Your task to perform on an android device: move an email to a new category in the gmail app Image 0: 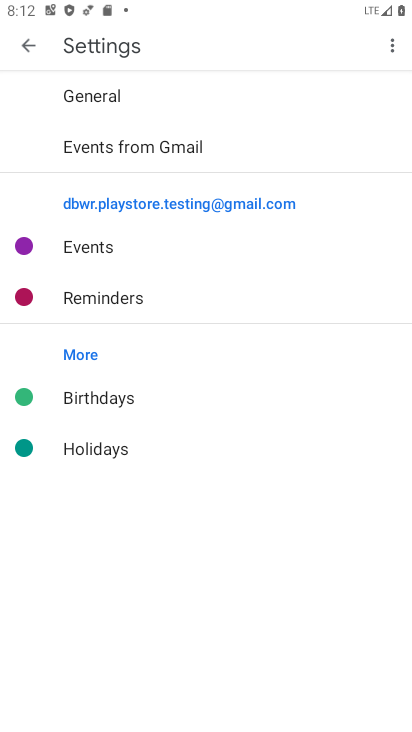
Step 0: press home button
Your task to perform on an android device: move an email to a new category in the gmail app Image 1: 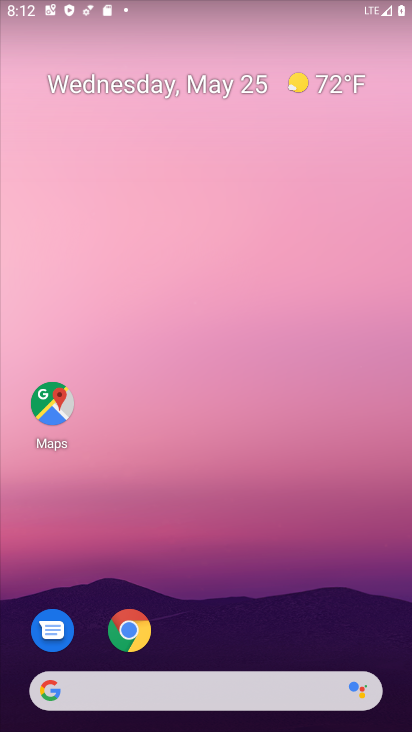
Step 1: drag from (238, 648) to (218, 229)
Your task to perform on an android device: move an email to a new category in the gmail app Image 2: 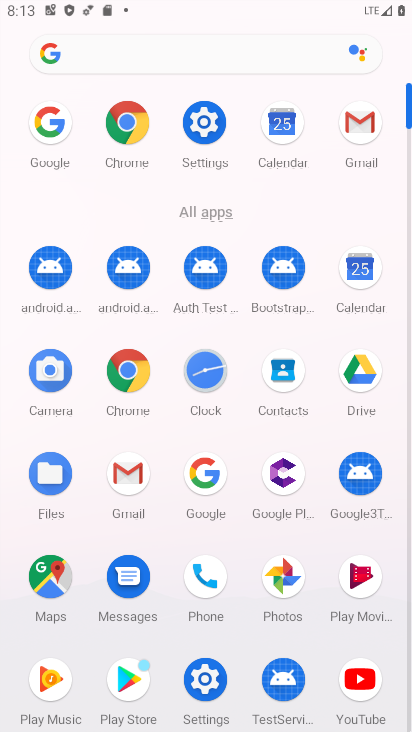
Step 2: click (365, 145)
Your task to perform on an android device: move an email to a new category in the gmail app Image 3: 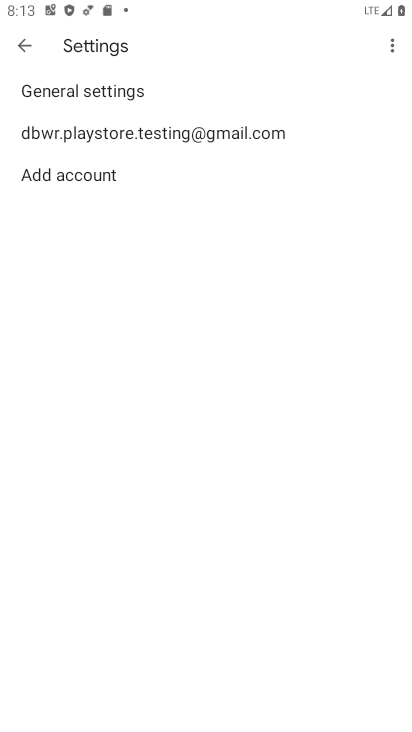
Step 3: click (28, 53)
Your task to perform on an android device: move an email to a new category in the gmail app Image 4: 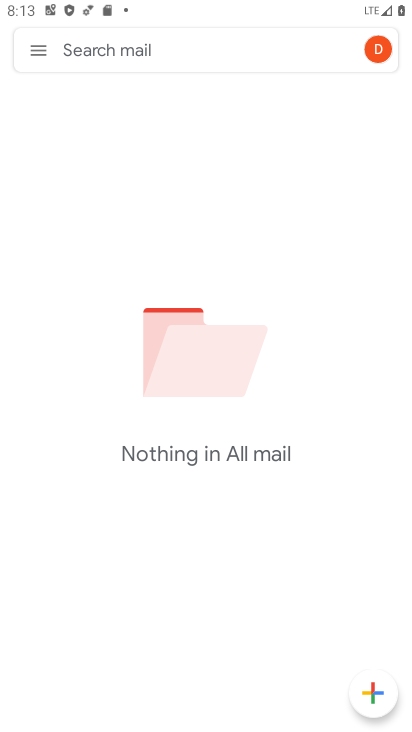
Step 4: click (30, 52)
Your task to perform on an android device: move an email to a new category in the gmail app Image 5: 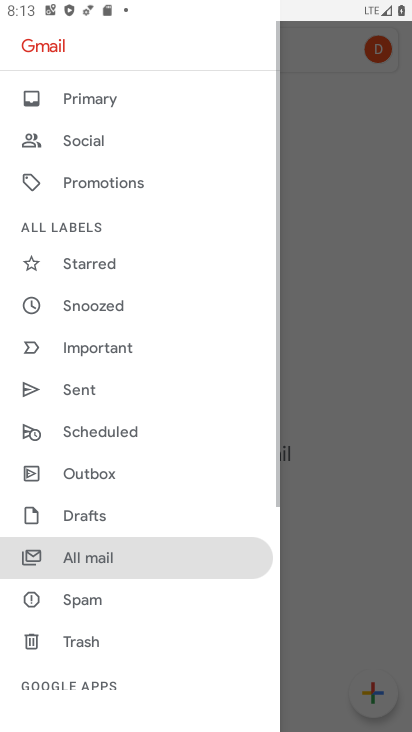
Step 5: click (108, 555)
Your task to perform on an android device: move an email to a new category in the gmail app Image 6: 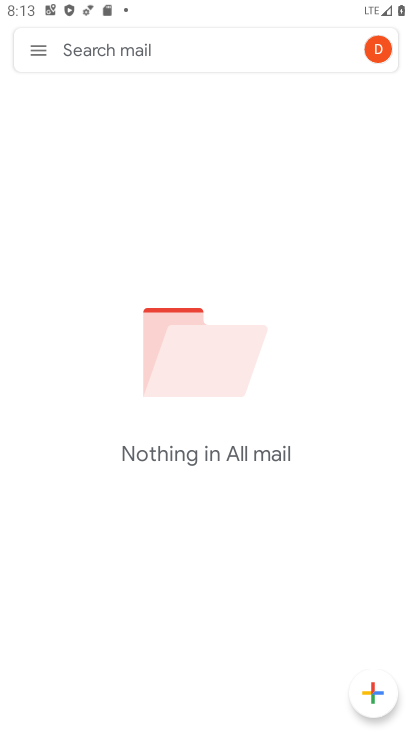
Step 6: task complete